Your task to perform on an android device: set the timer Image 0: 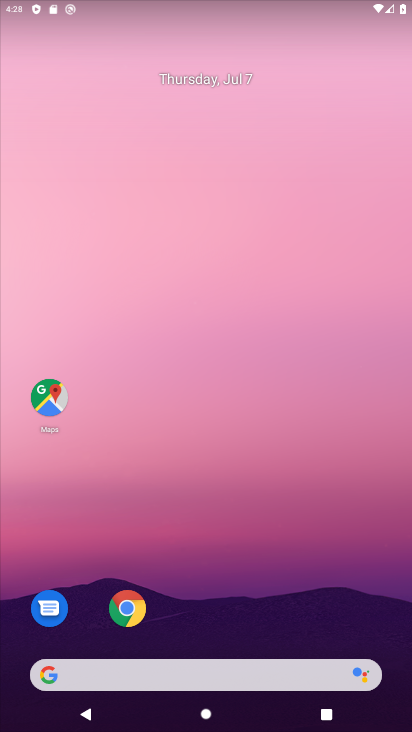
Step 0: drag from (312, 575) to (254, 123)
Your task to perform on an android device: set the timer Image 1: 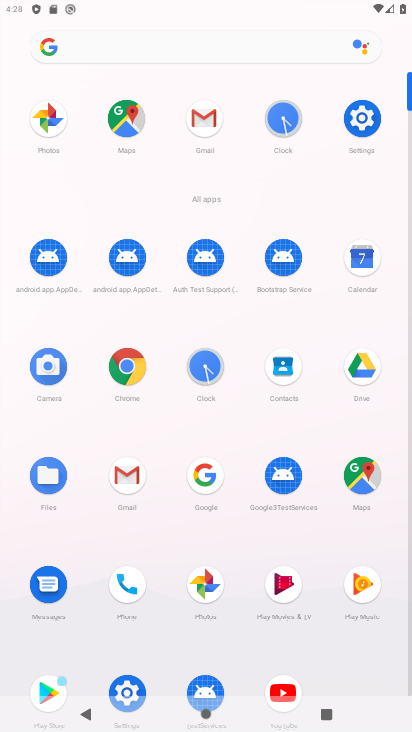
Step 1: click (294, 119)
Your task to perform on an android device: set the timer Image 2: 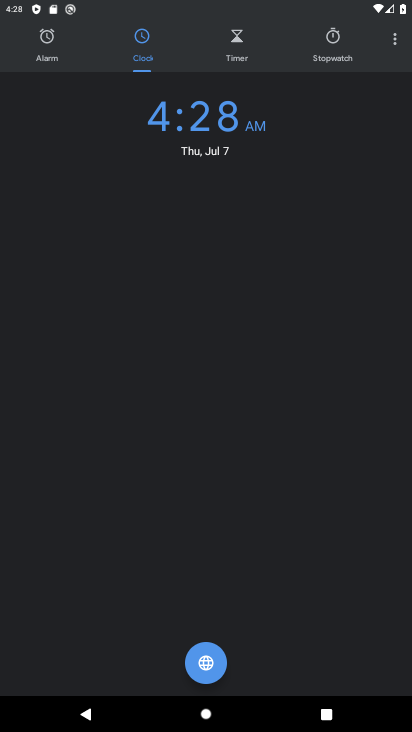
Step 2: click (246, 62)
Your task to perform on an android device: set the timer Image 3: 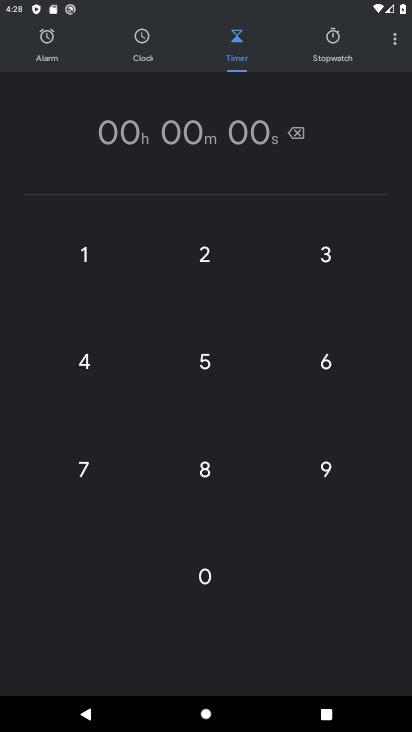
Step 3: type "1000000"
Your task to perform on an android device: set the timer Image 4: 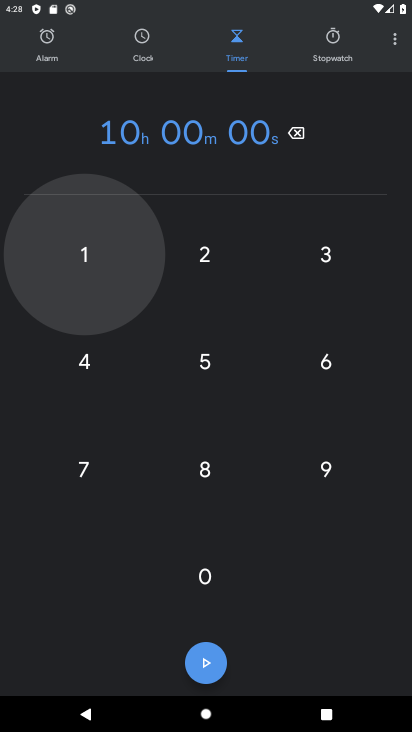
Step 4: click (208, 665)
Your task to perform on an android device: set the timer Image 5: 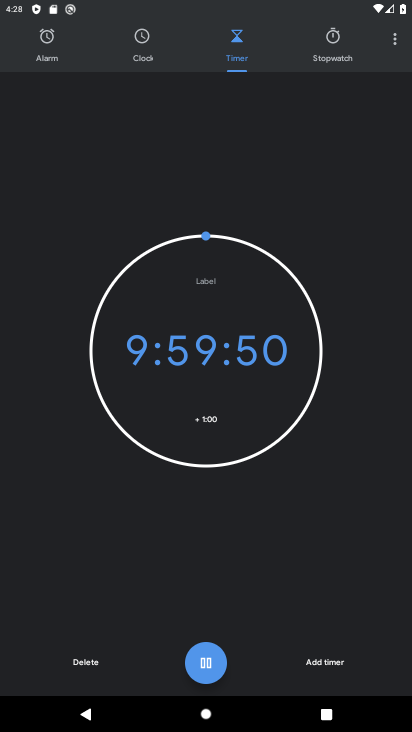
Step 5: task complete